Your task to perform on an android device: create a new album in the google photos Image 0: 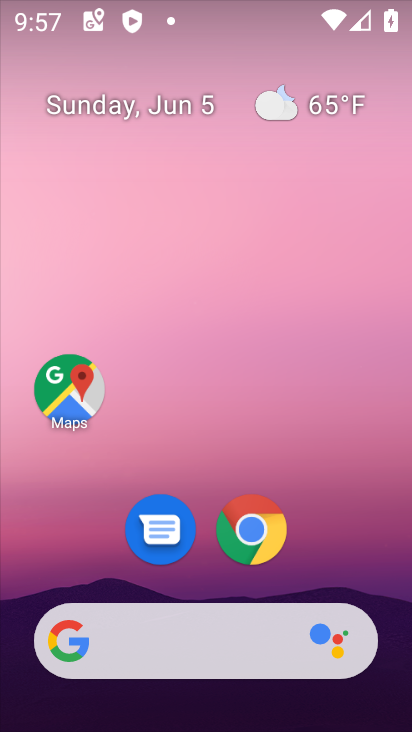
Step 0: drag from (268, 618) to (49, 4)
Your task to perform on an android device: create a new album in the google photos Image 1: 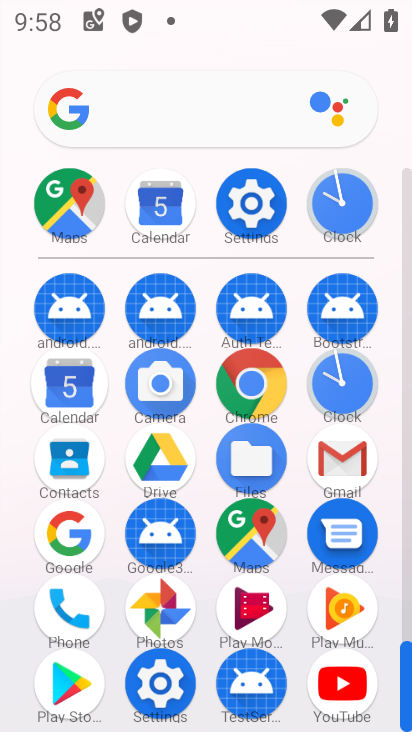
Step 1: click (159, 604)
Your task to perform on an android device: create a new album in the google photos Image 2: 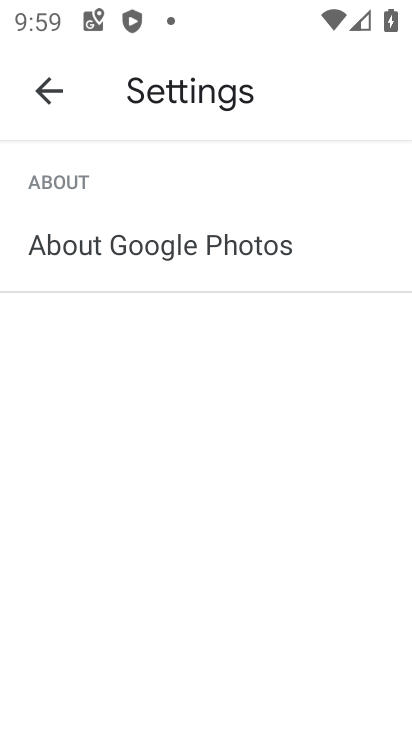
Step 2: click (33, 90)
Your task to perform on an android device: create a new album in the google photos Image 3: 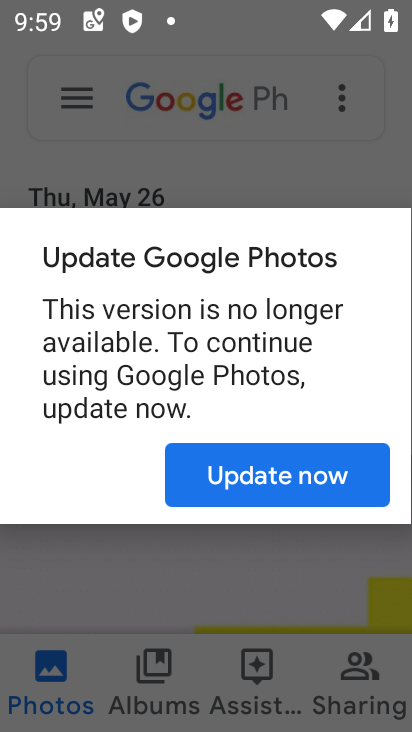
Step 3: click (273, 479)
Your task to perform on an android device: create a new album in the google photos Image 4: 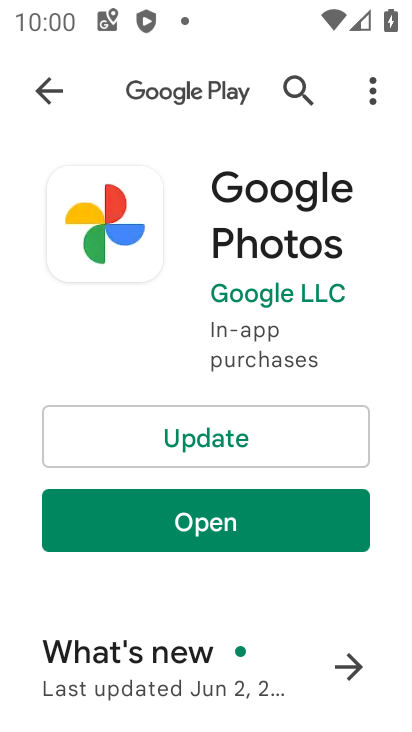
Step 4: click (231, 446)
Your task to perform on an android device: create a new album in the google photos Image 5: 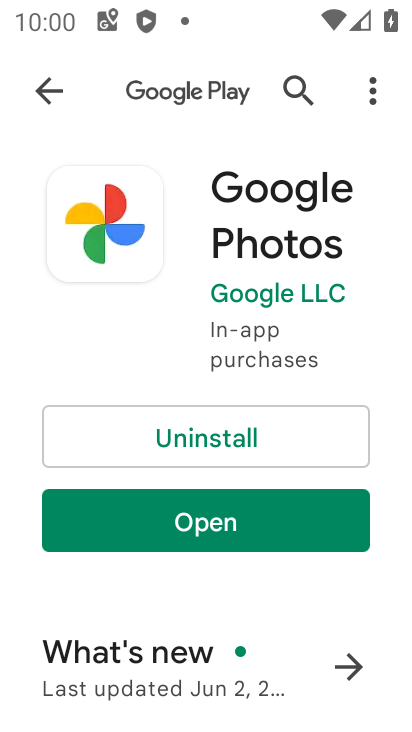
Step 5: click (227, 550)
Your task to perform on an android device: create a new album in the google photos Image 6: 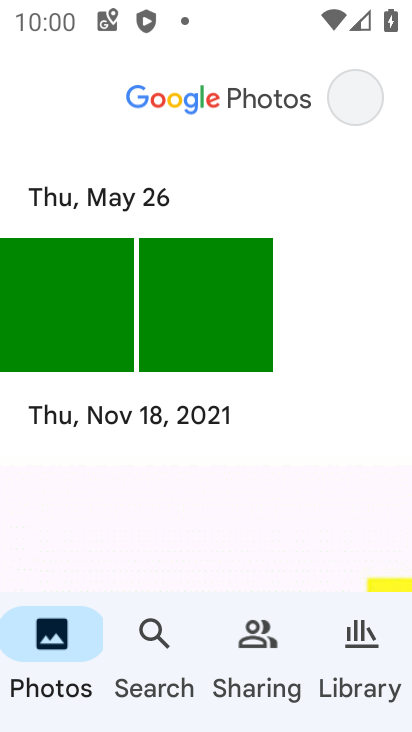
Step 6: click (226, 348)
Your task to perform on an android device: create a new album in the google photos Image 7: 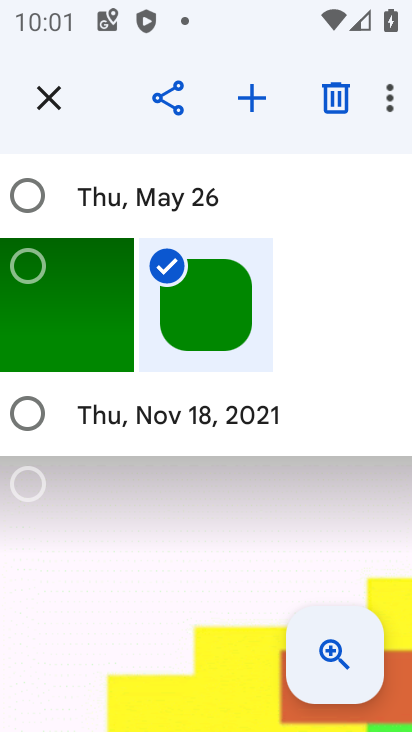
Step 7: click (238, 103)
Your task to perform on an android device: create a new album in the google photos Image 8: 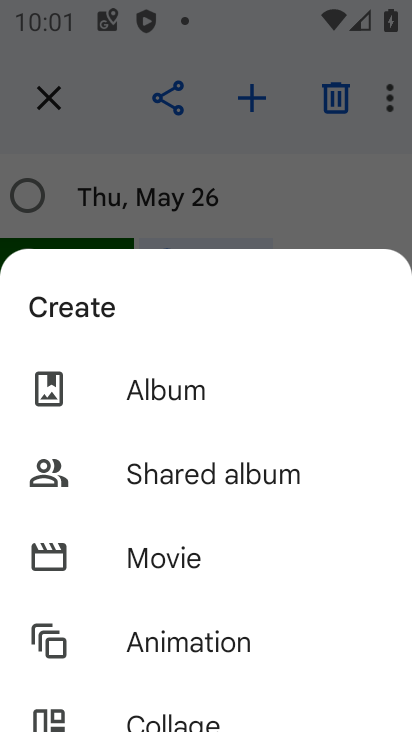
Step 8: click (218, 395)
Your task to perform on an android device: create a new album in the google photos Image 9: 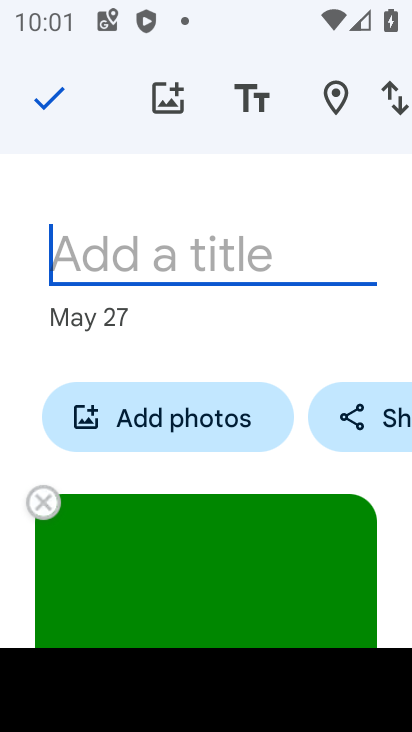
Step 9: type "hhvjk"
Your task to perform on an android device: create a new album in the google photos Image 10: 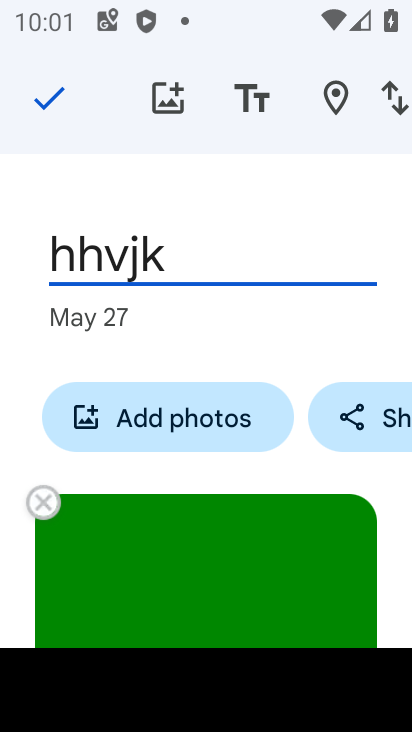
Step 10: click (43, 108)
Your task to perform on an android device: create a new album in the google photos Image 11: 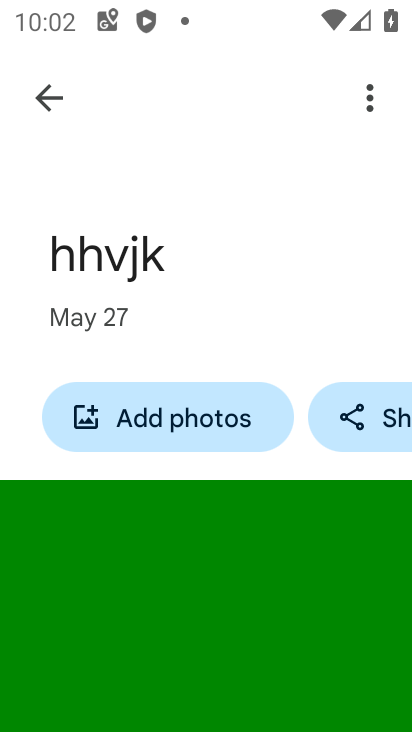
Step 11: task complete